Your task to perform on an android device: Open location settings Image 0: 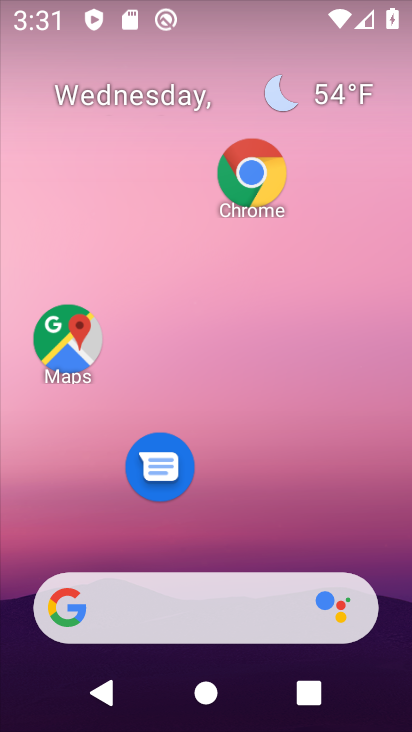
Step 0: drag from (231, 529) to (218, 118)
Your task to perform on an android device: Open location settings Image 1: 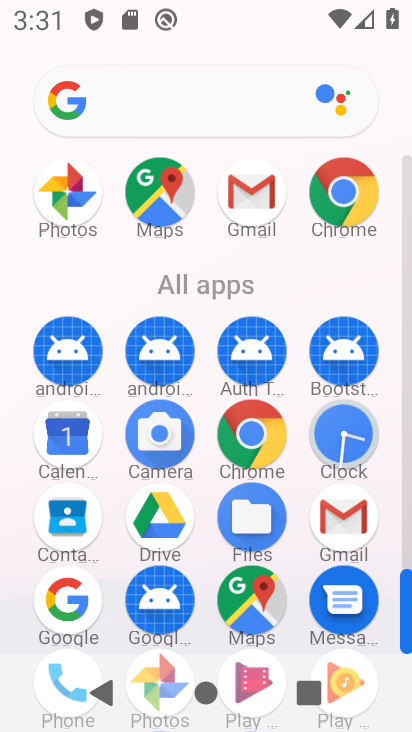
Step 1: drag from (137, 598) to (184, 118)
Your task to perform on an android device: Open location settings Image 2: 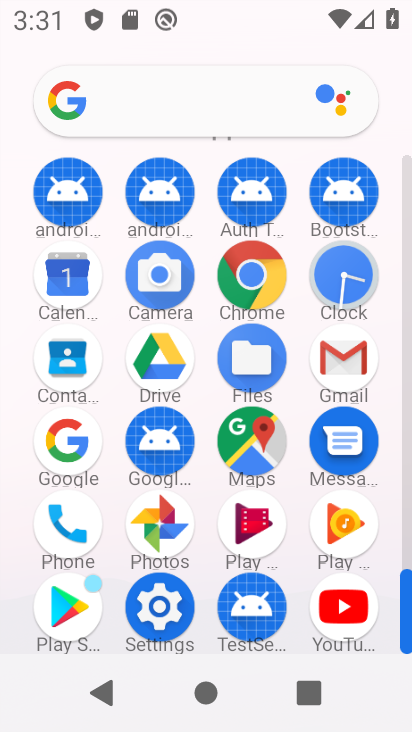
Step 2: click (157, 610)
Your task to perform on an android device: Open location settings Image 3: 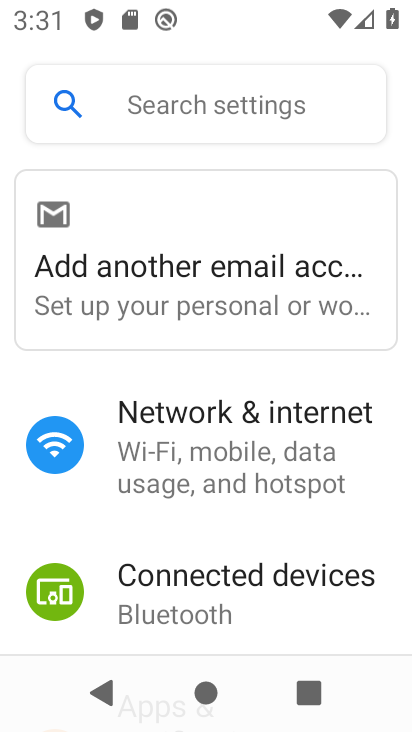
Step 3: drag from (183, 582) to (296, 53)
Your task to perform on an android device: Open location settings Image 4: 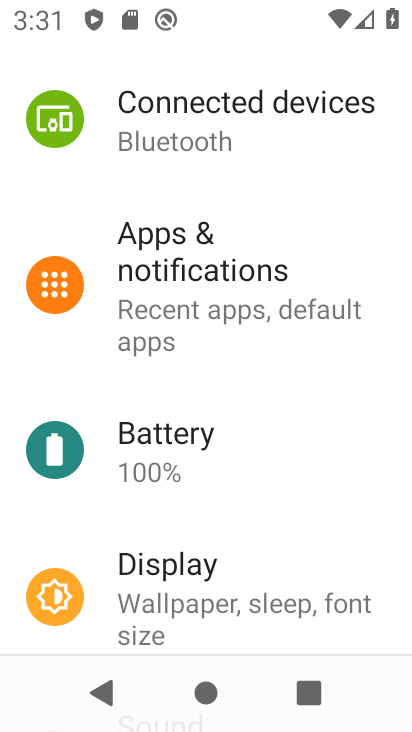
Step 4: drag from (182, 587) to (255, 151)
Your task to perform on an android device: Open location settings Image 5: 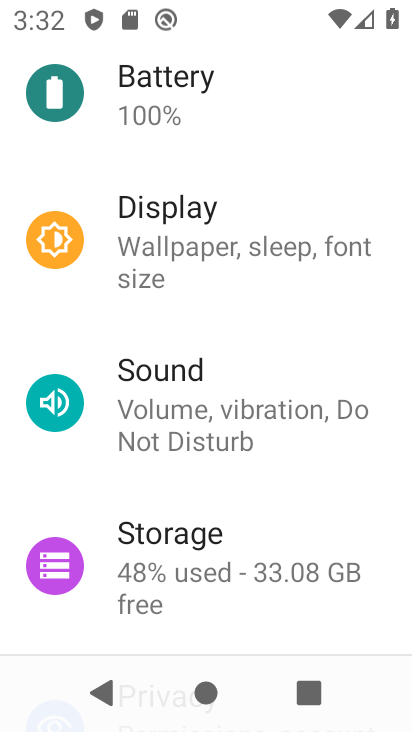
Step 5: drag from (159, 606) to (290, 104)
Your task to perform on an android device: Open location settings Image 6: 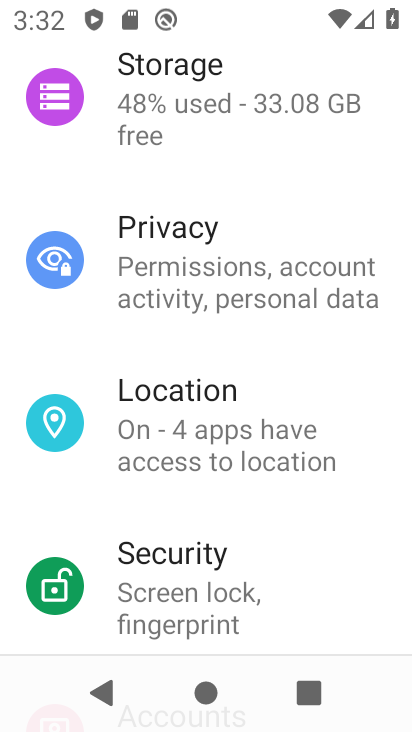
Step 6: click (165, 402)
Your task to perform on an android device: Open location settings Image 7: 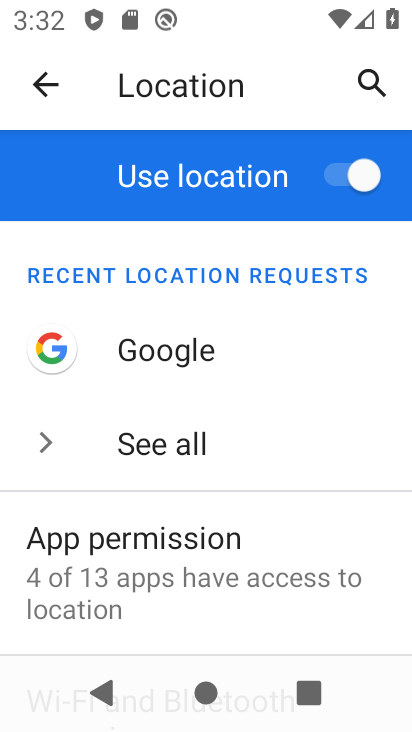
Step 7: task complete